Your task to perform on an android device: What's on my calendar today? Image 0: 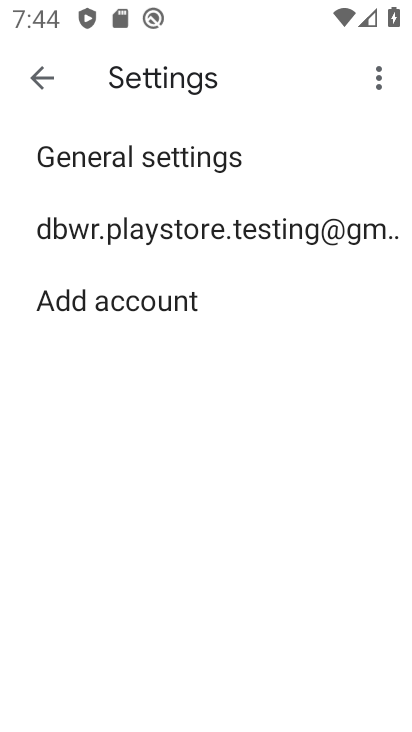
Step 0: press home button
Your task to perform on an android device: What's on my calendar today? Image 1: 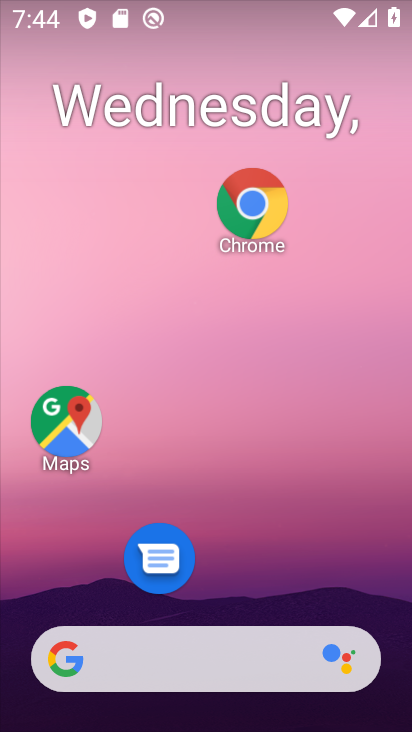
Step 1: drag from (210, 596) to (209, 57)
Your task to perform on an android device: What's on my calendar today? Image 2: 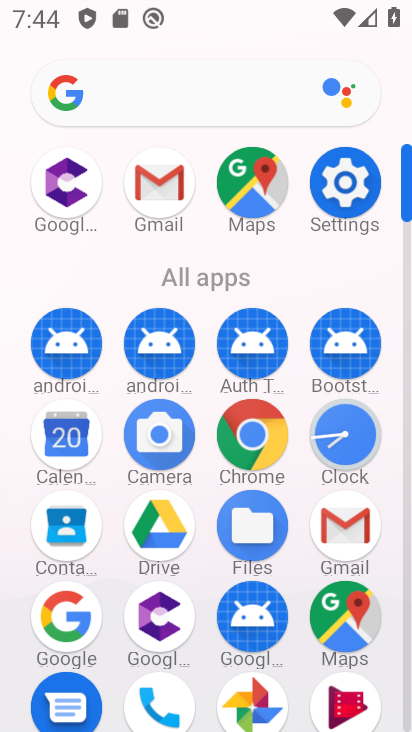
Step 2: click (64, 429)
Your task to perform on an android device: What's on my calendar today? Image 3: 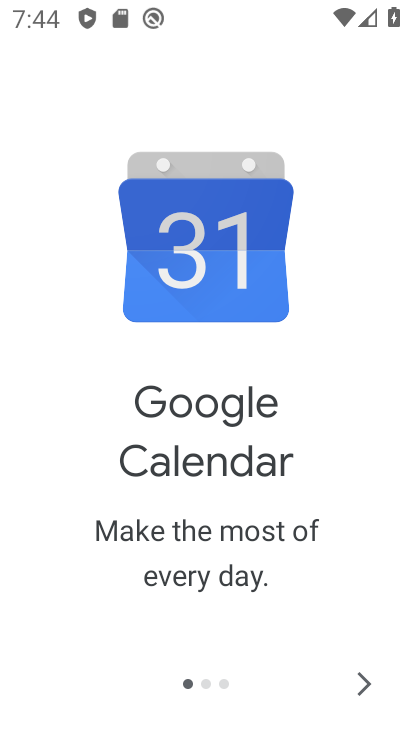
Step 3: click (355, 680)
Your task to perform on an android device: What's on my calendar today? Image 4: 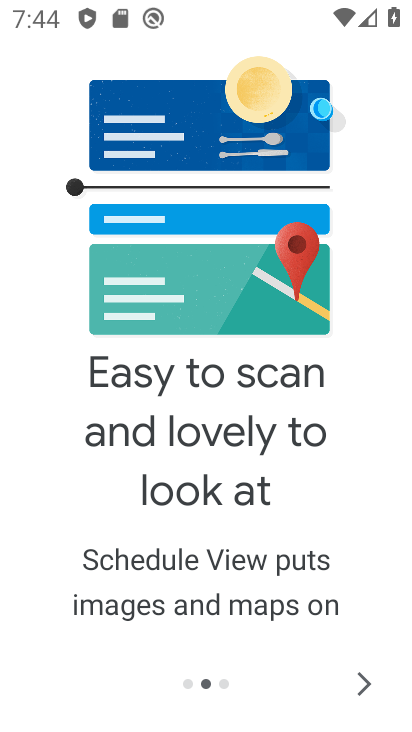
Step 4: click (355, 679)
Your task to perform on an android device: What's on my calendar today? Image 5: 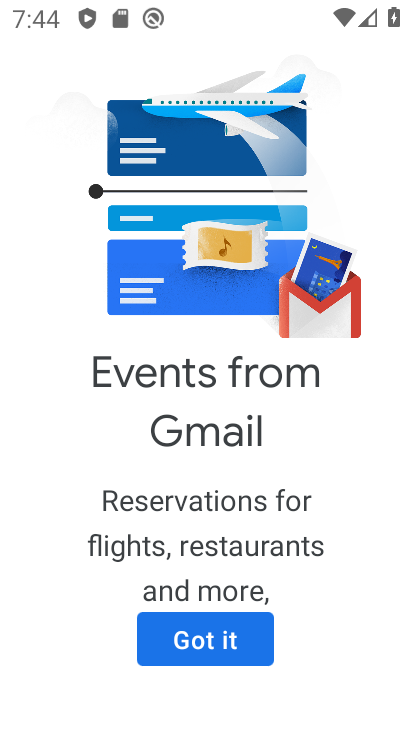
Step 5: click (213, 641)
Your task to perform on an android device: What's on my calendar today? Image 6: 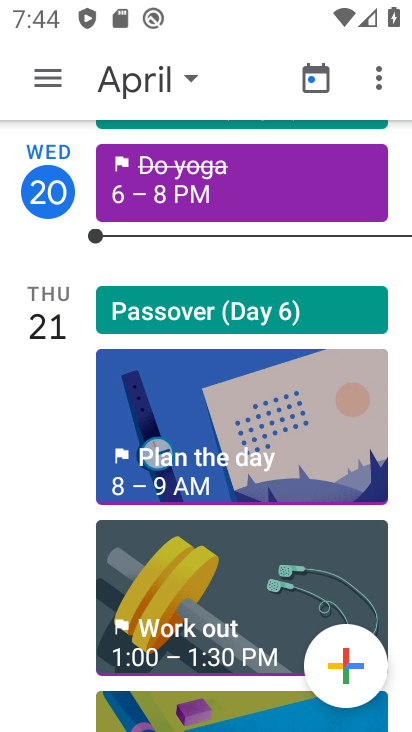
Step 6: click (62, 222)
Your task to perform on an android device: What's on my calendar today? Image 7: 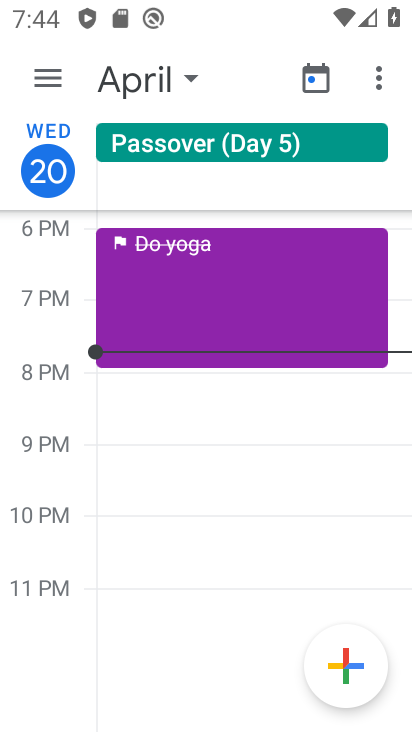
Step 7: task complete